Your task to perform on an android device: turn off improve location accuracy Image 0: 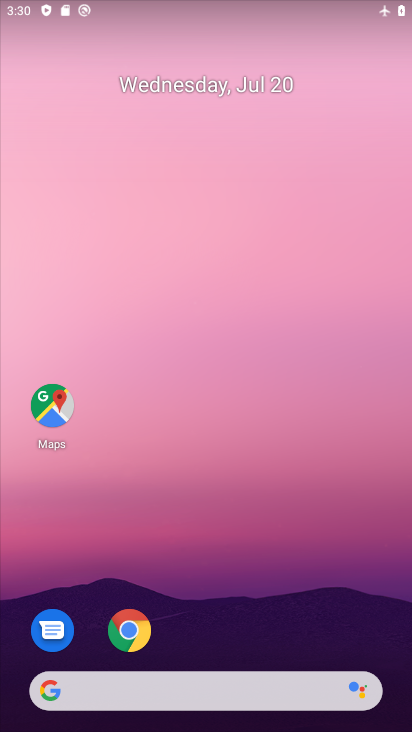
Step 0: press home button
Your task to perform on an android device: turn off improve location accuracy Image 1: 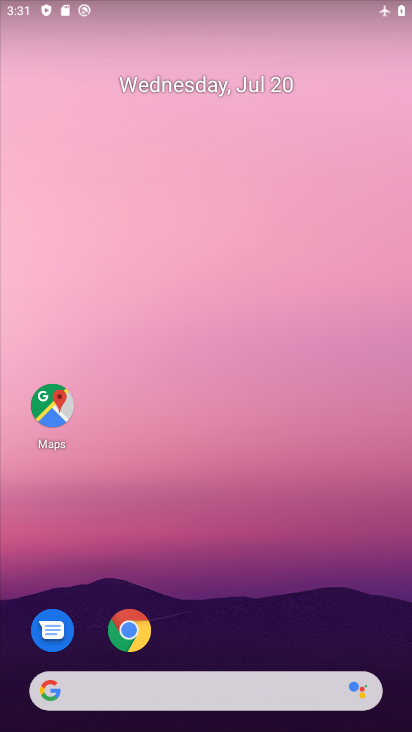
Step 1: drag from (240, 627) to (330, 6)
Your task to perform on an android device: turn off improve location accuracy Image 2: 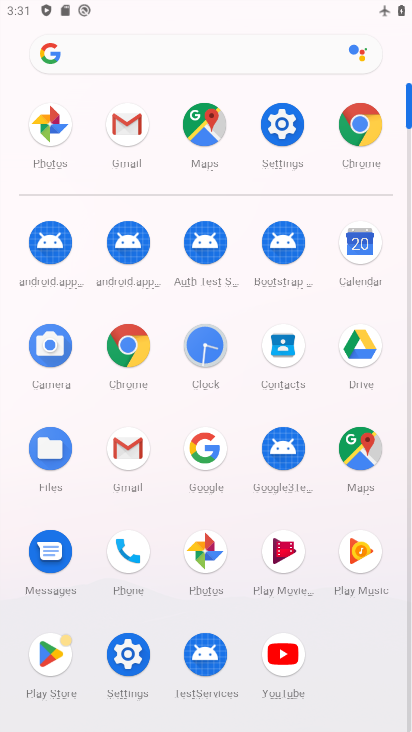
Step 2: click (289, 143)
Your task to perform on an android device: turn off improve location accuracy Image 3: 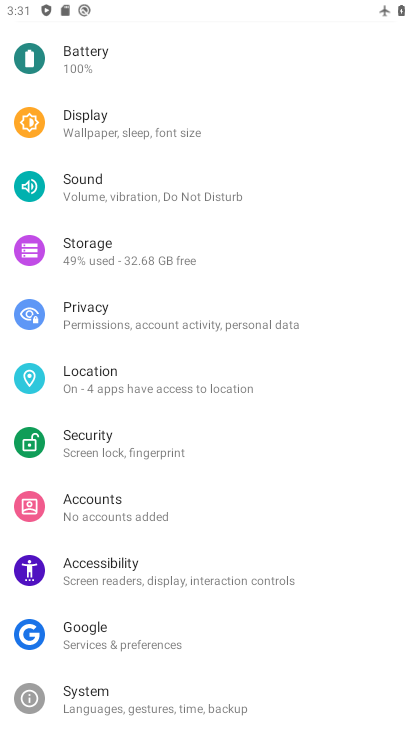
Step 3: click (75, 381)
Your task to perform on an android device: turn off improve location accuracy Image 4: 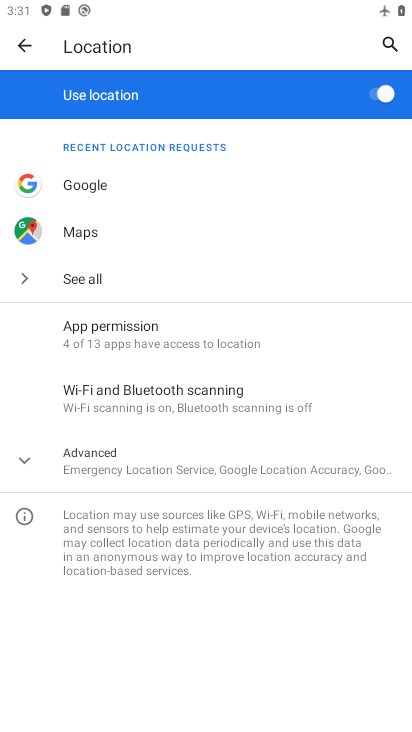
Step 4: click (96, 454)
Your task to perform on an android device: turn off improve location accuracy Image 5: 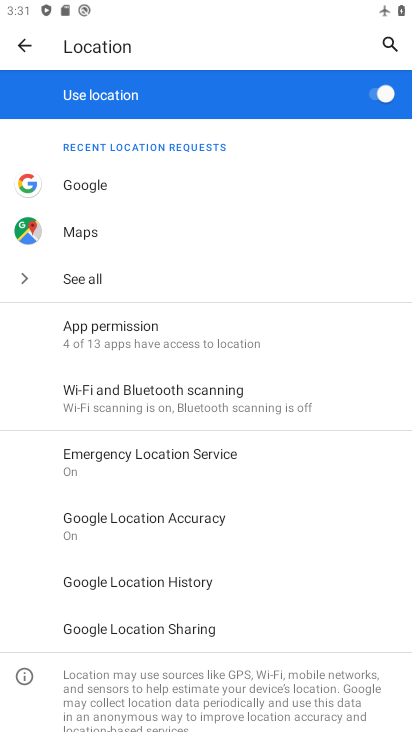
Step 5: click (144, 525)
Your task to perform on an android device: turn off improve location accuracy Image 6: 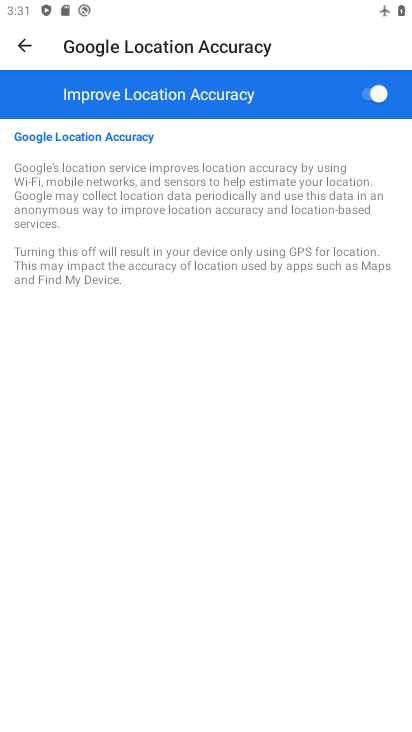
Step 6: click (384, 93)
Your task to perform on an android device: turn off improve location accuracy Image 7: 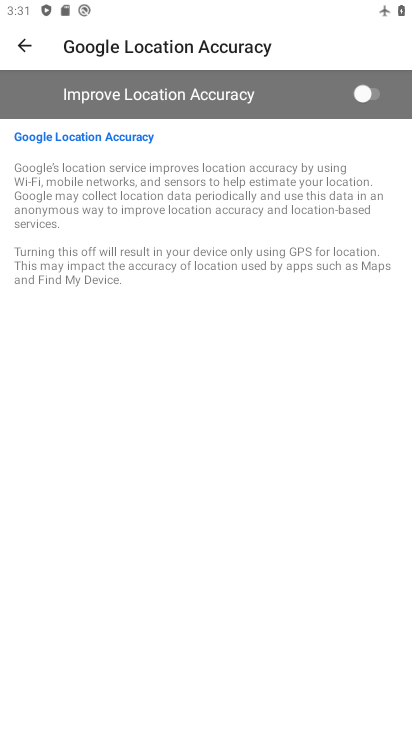
Step 7: task complete